Your task to perform on an android device: Search for sushi restaurants on Maps Image 0: 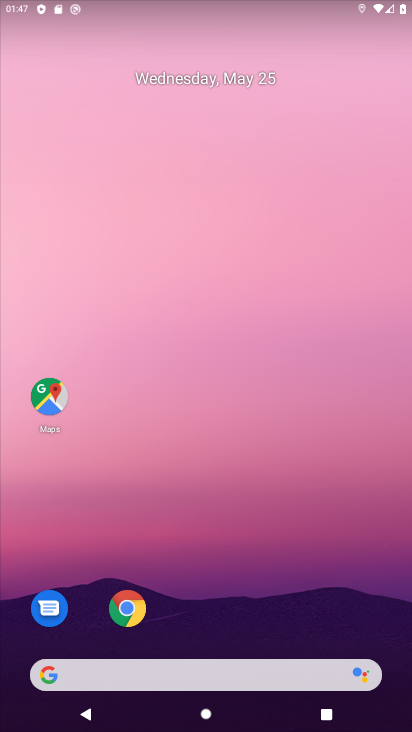
Step 0: click (34, 404)
Your task to perform on an android device: Search for sushi restaurants on Maps Image 1: 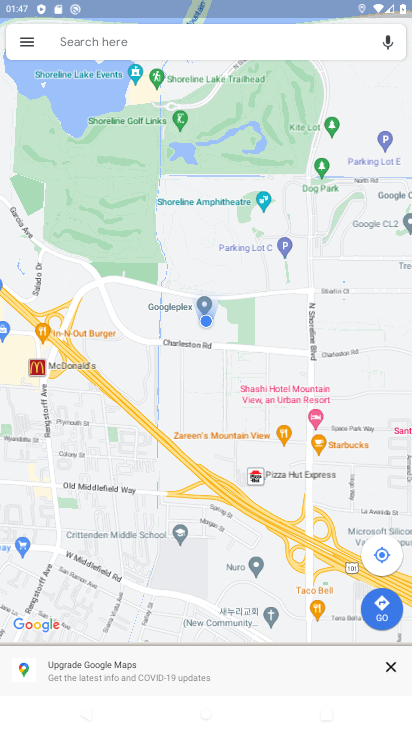
Step 1: click (206, 52)
Your task to perform on an android device: Search for sushi restaurants on Maps Image 2: 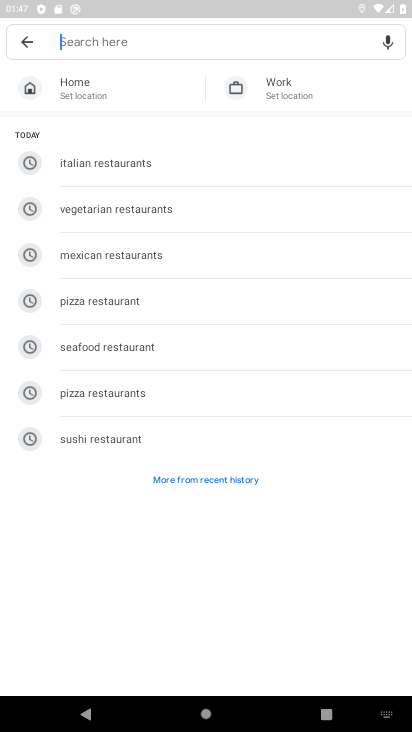
Step 2: click (100, 437)
Your task to perform on an android device: Search for sushi restaurants on Maps Image 3: 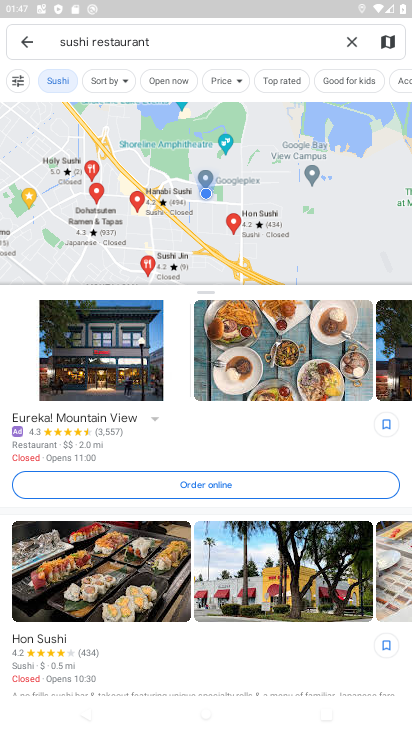
Step 3: task complete